Your task to perform on an android device: allow cookies in the chrome app Image 0: 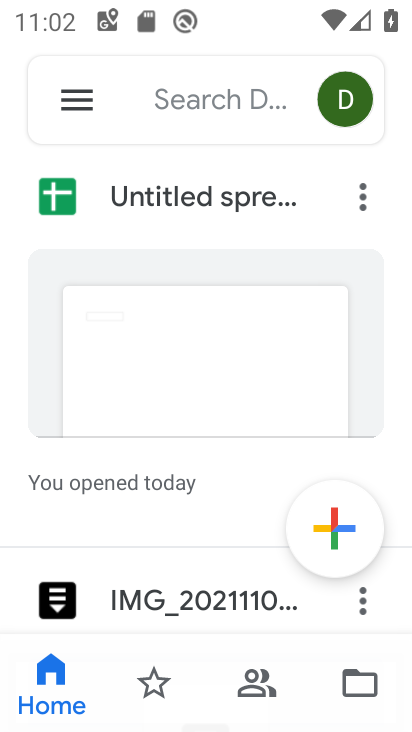
Step 0: press home button
Your task to perform on an android device: allow cookies in the chrome app Image 1: 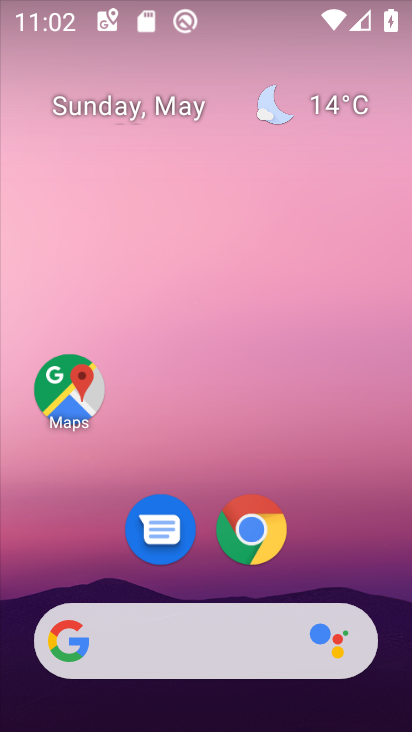
Step 1: click (247, 537)
Your task to perform on an android device: allow cookies in the chrome app Image 2: 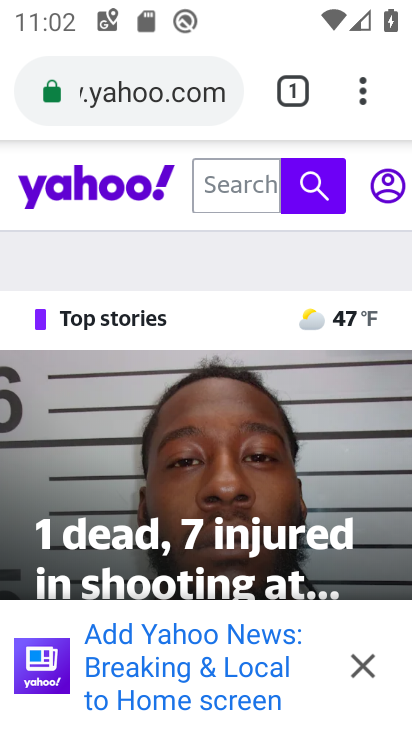
Step 2: drag from (362, 93) to (157, 555)
Your task to perform on an android device: allow cookies in the chrome app Image 3: 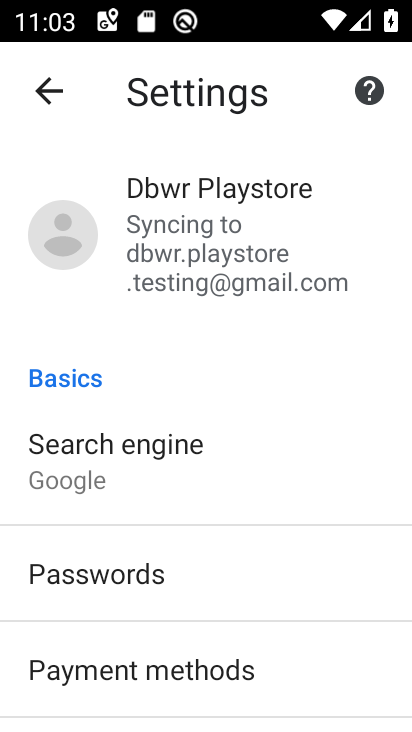
Step 3: drag from (175, 612) to (192, 15)
Your task to perform on an android device: allow cookies in the chrome app Image 4: 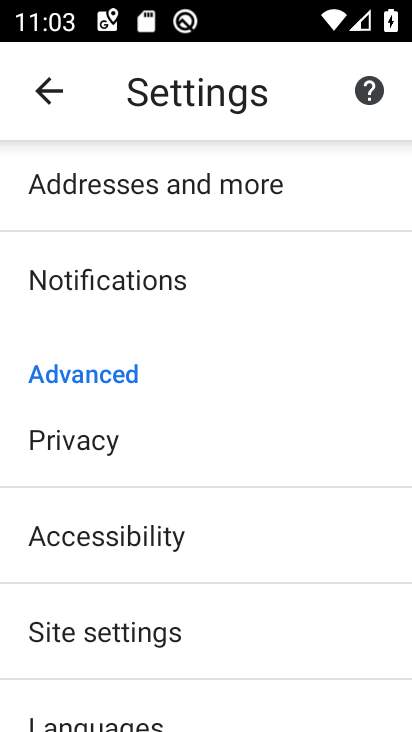
Step 4: click (178, 662)
Your task to perform on an android device: allow cookies in the chrome app Image 5: 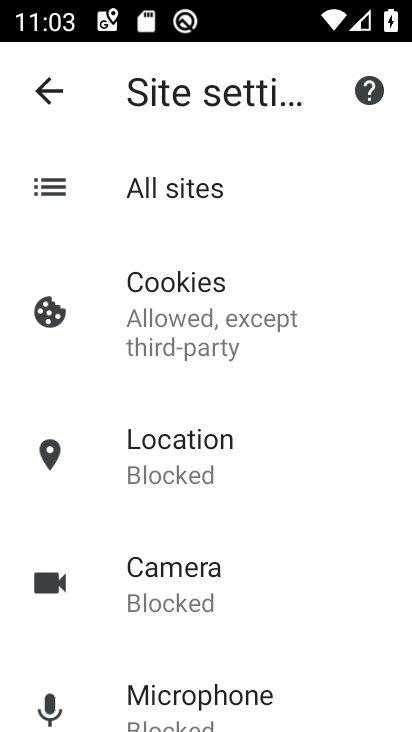
Step 5: click (206, 345)
Your task to perform on an android device: allow cookies in the chrome app Image 6: 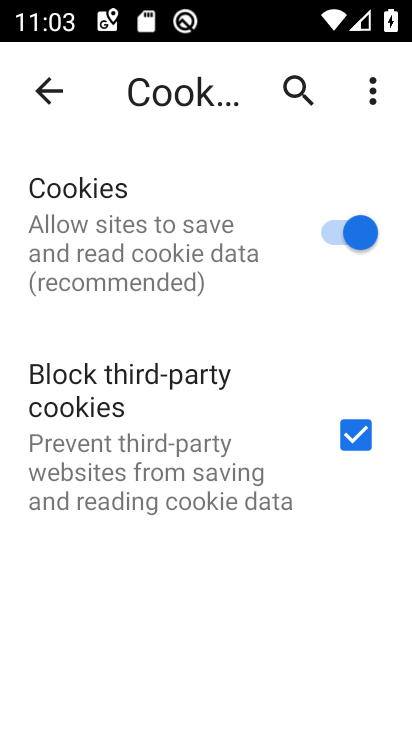
Step 6: task complete